Your task to perform on an android device: Go to settings Image 0: 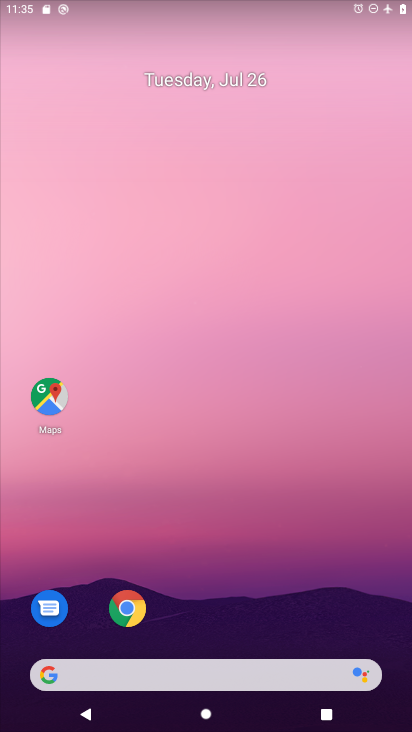
Step 0: drag from (317, 576) to (288, 43)
Your task to perform on an android device: Go to settings Image 1: 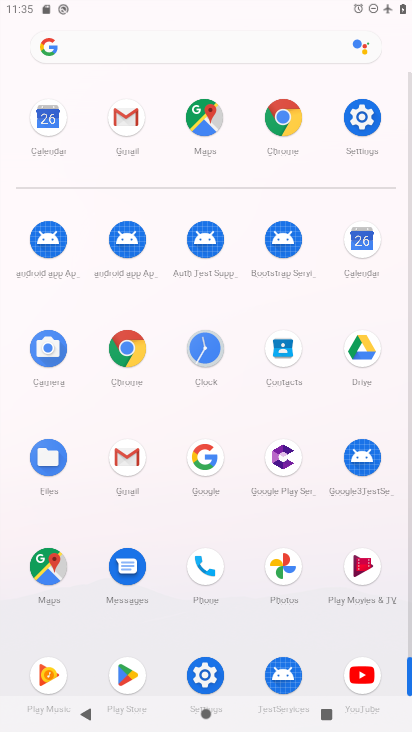
Step 1: click (361, 118)
Your task to perform on an android device: Go to settings Image 2: 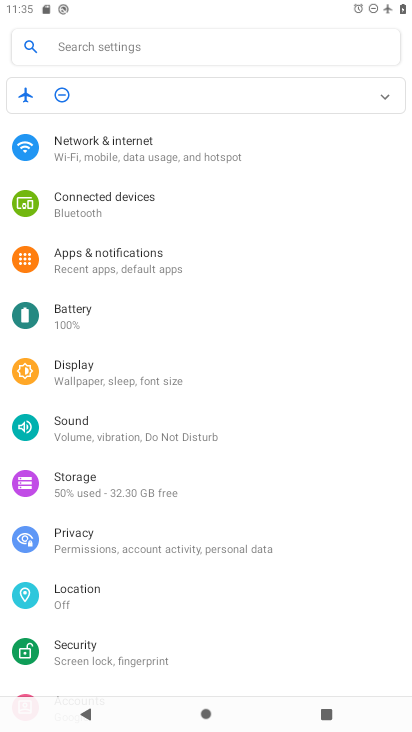
Step 2: task complete